Your task to perform on an android device: Toggle the flashlight Image 0: 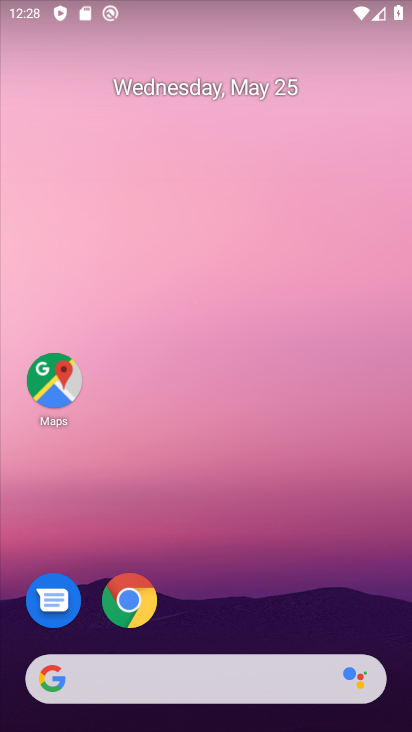
Step 0: drag from (229, 612) to (193, 237)
Your task to perform on an android device: Toggle the flashlight Image 1: 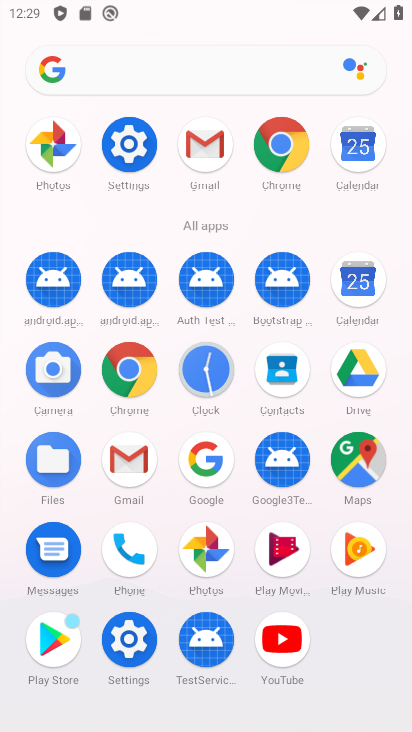
Step 1: drag from (269, 4) to (169, 671)
Your task to perform on an android device: Toggle the flashlight Image 2: 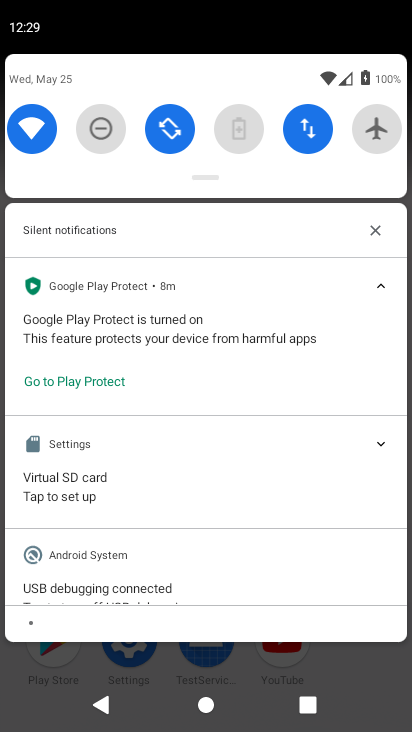
Step 2: drag from (204, 155) to (182, 507)
Your task to perform on an android device: Toggle the flashlight Image 3: 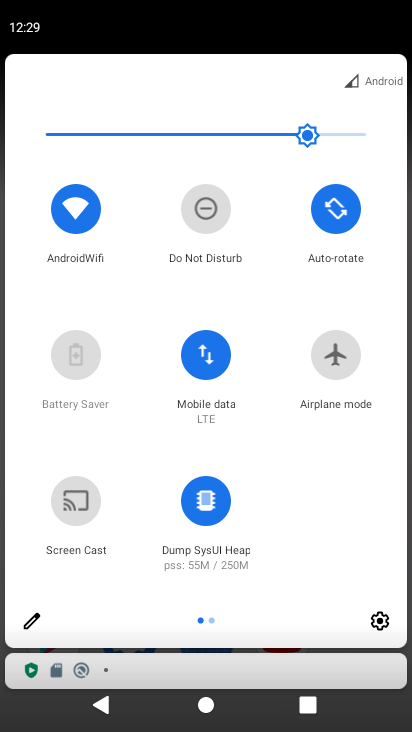
Step 3: click (41, 617)
Your task to perform on an android device: Toggle the flashlight Image 4: 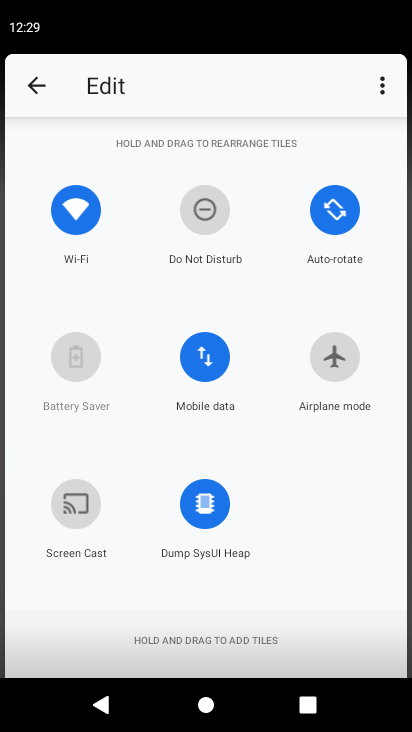
Step 4: task complete